Your task to perform on an android device: turn on sleep mode Image 0: 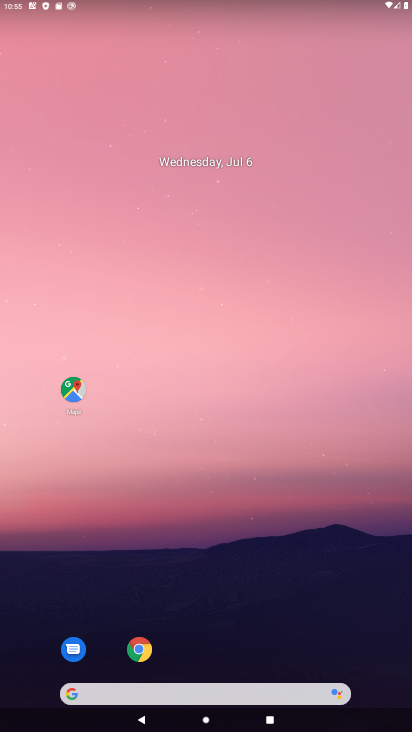
Step 0: drag from (348, 633) to (188, 32)
Your task to perform on an android device: turn on sleep mode Image 1: 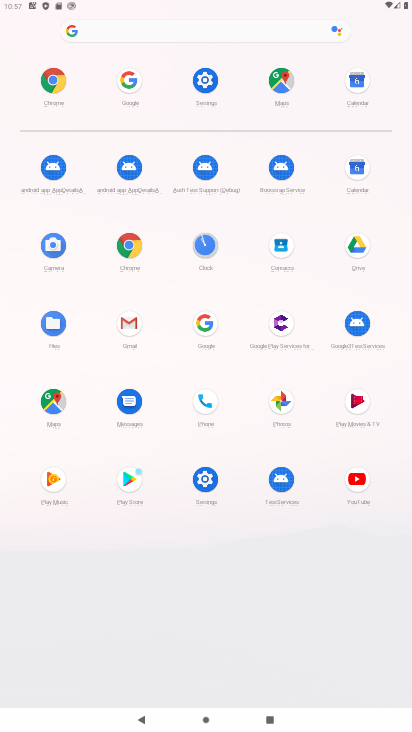
Step 1: click (202, 87)
Your task to perform on an android device: turn on sleep mode Image 2: 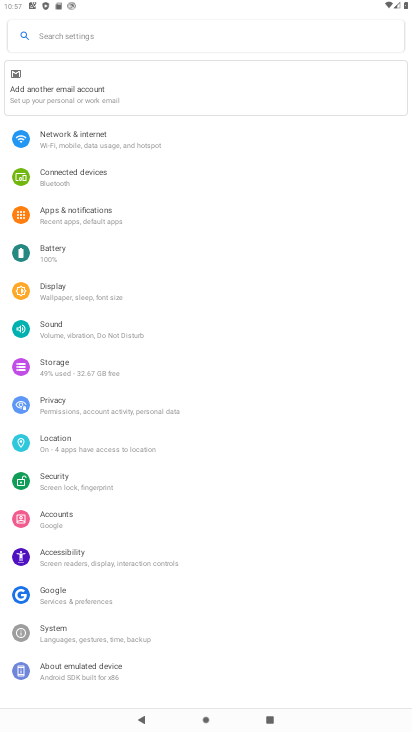
Step 2: task complete